Your task to perform on an android device: Open notification settings Image 0: 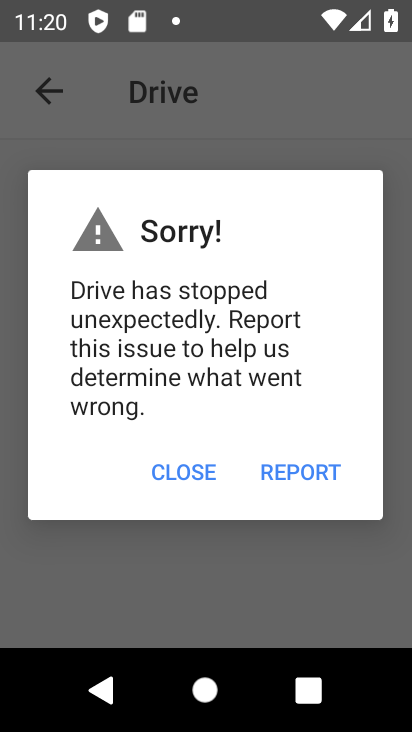
Step 0: press home button
Your task to perform on an android device: Open notification settings Image 1: 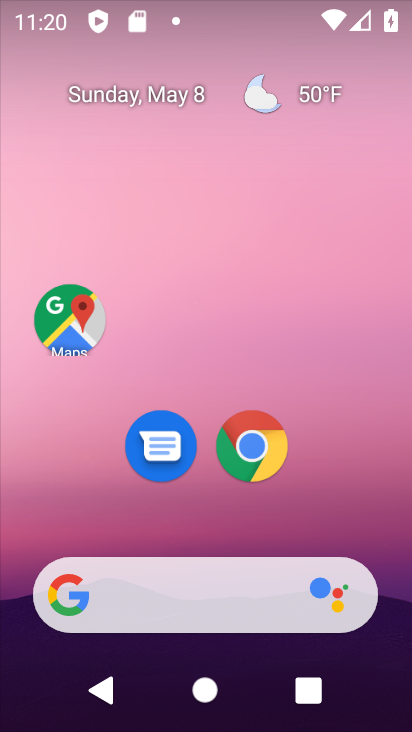
Step 1: drag from (315, 531) to (327, 61)
Your task to perform on an android device: Open notification settings Image 2: 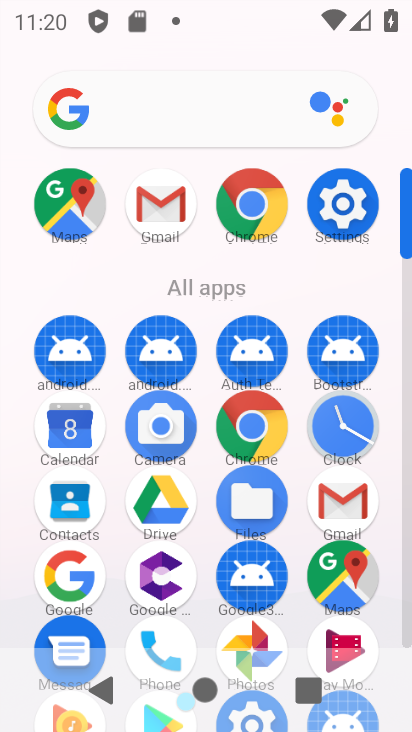
Step 2: click (330, 219)
Your task to perform on an android device: Open notification settings Image 3: 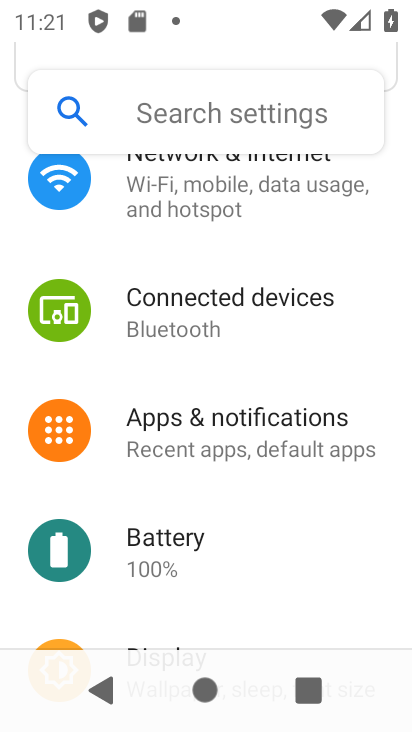
Step 3: click (217, 446)
Your task to perform on an android device: Open notification settings Image 4: 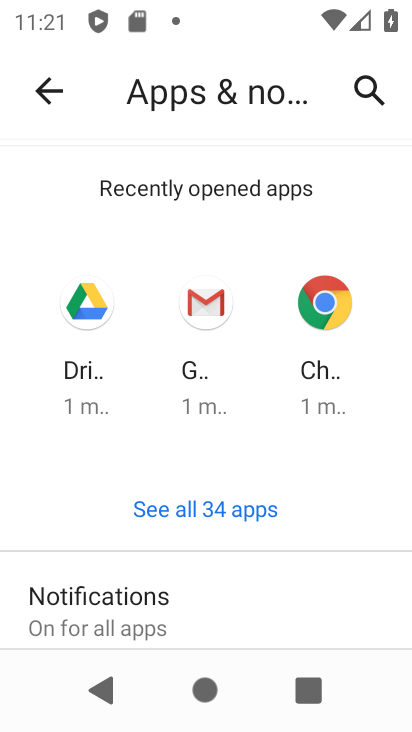
Step 4: click (228, 575)
Your task to perform on an android device: Open notification settings Image 5: 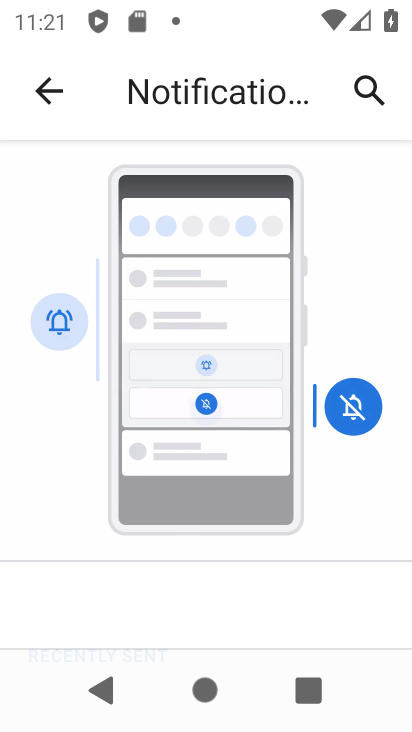
Step 5: task complete